Your task to perform on an android device: turn pop-ups on in chrome Image 0: 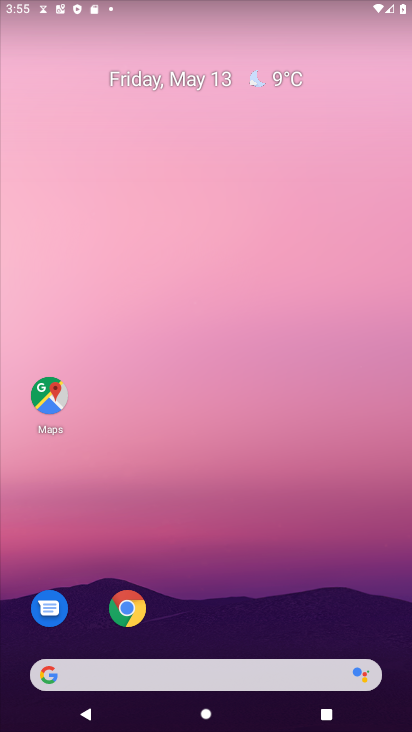
Step 0: click (122, 608)
Your task to perform on an android device: turn pop-ups on in chrome Image 1: 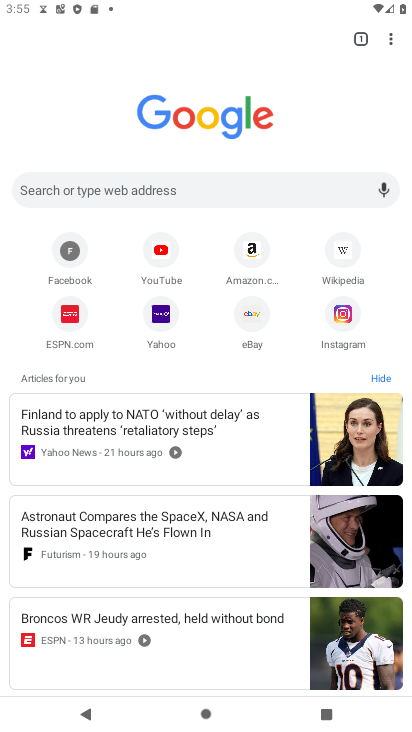
Step 1: click (389, 38)
Your task to perform on an android device: turn pop-ups on in chrome Image 2: 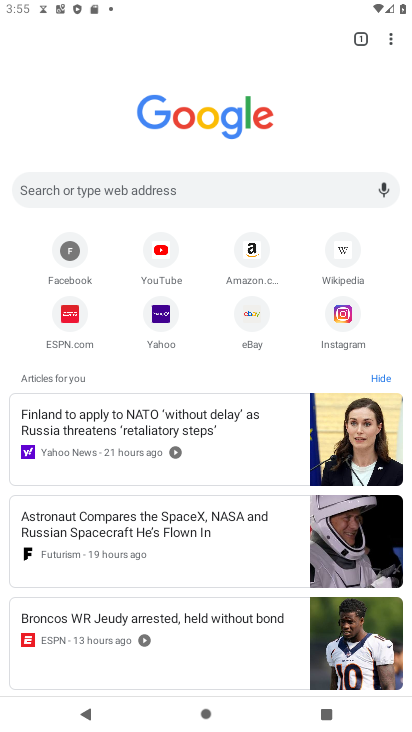
Step 2: click (388, 42)
Your task to perform on an android device: turn pop-ups on in chrome Image 3: 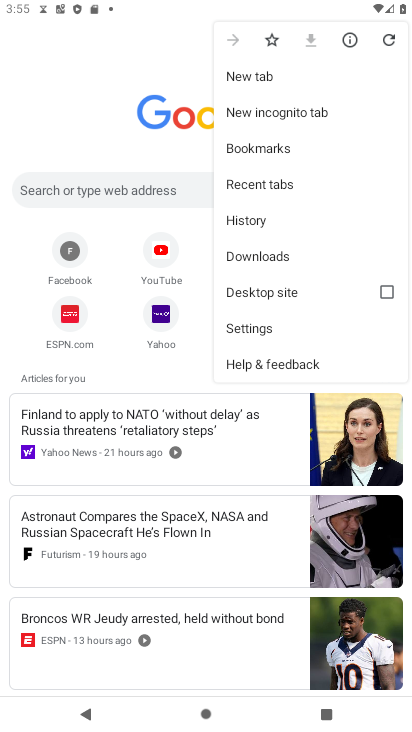
Step 3: click (253, 331)
Your task to perform on an android device: turn pop-ups on in chrome Image 4: 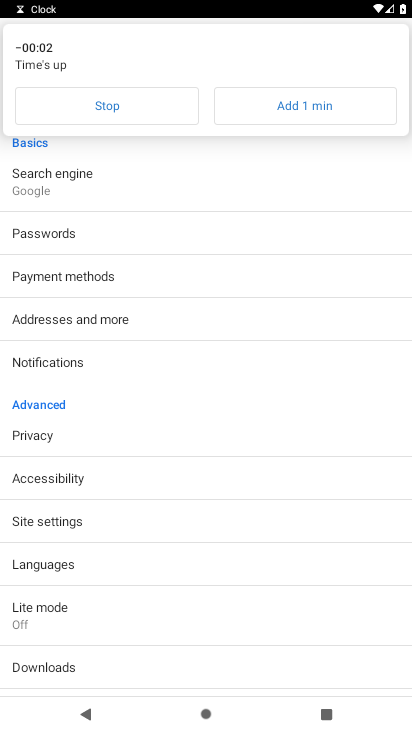
Step 4: click (43, 516)
Your task to perform on an android device: turn pop-ups on in chrome Image 5: 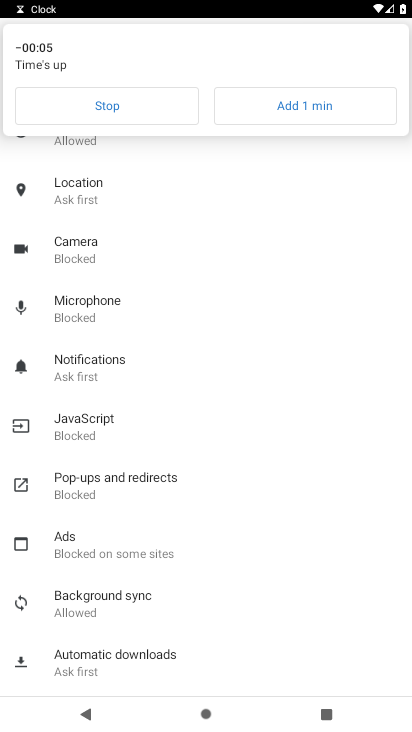
Step 5: click (112, 492)
Your task to perform on an android device: turn pop-ups on in chrome Image 6: 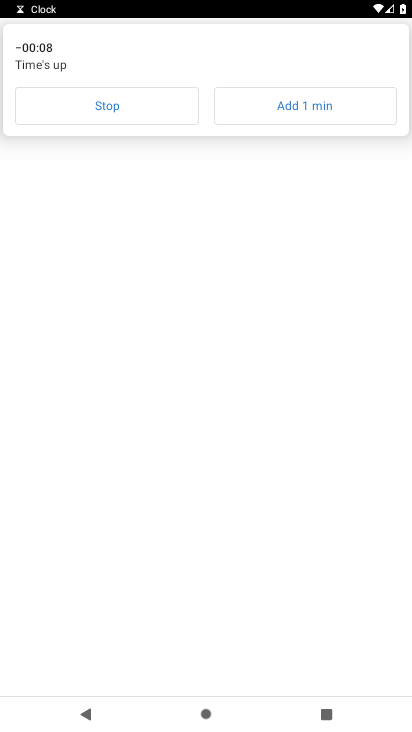
Step 6: click (96, 102)
Your task to perform on an android device: turn pop-ups on in chrome Image 7: 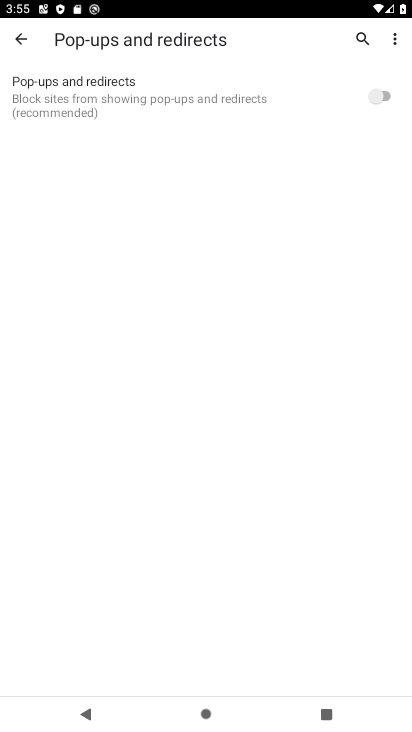
Step 7: click (388, 93)
Your task to perform on an android device: turn pop-ups on in chrome Image 8: 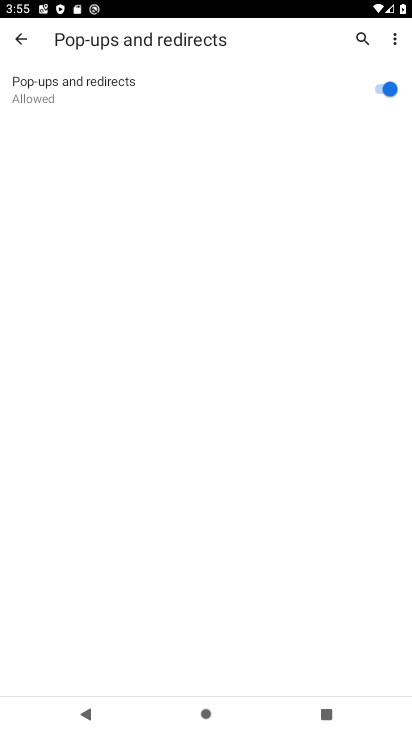
Step 8: task complete